Your task to perform on an android device: Go to Amazon Image 0: 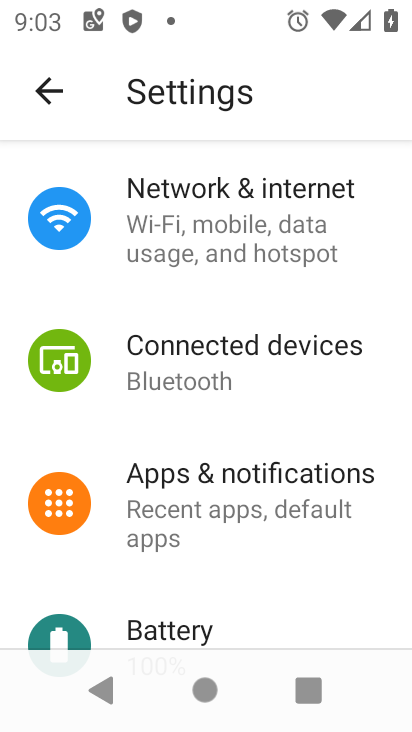
Step 0: press home button
Your task to perform on an android device: Go to Amazon Image 1: 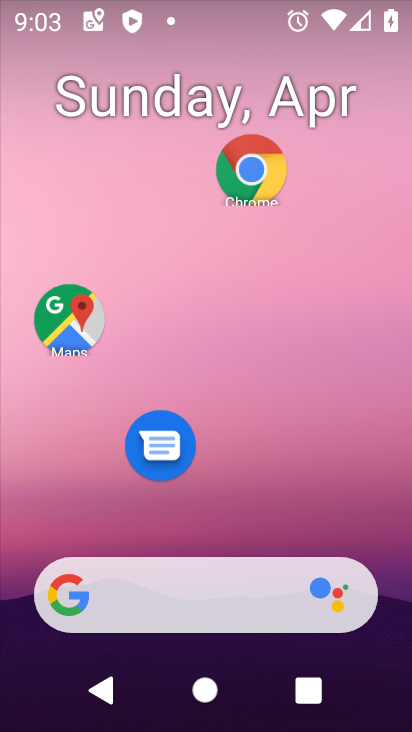
Step 1: click (252, 164)
Your task to perform on an android device: Go to Amazon Image 2: 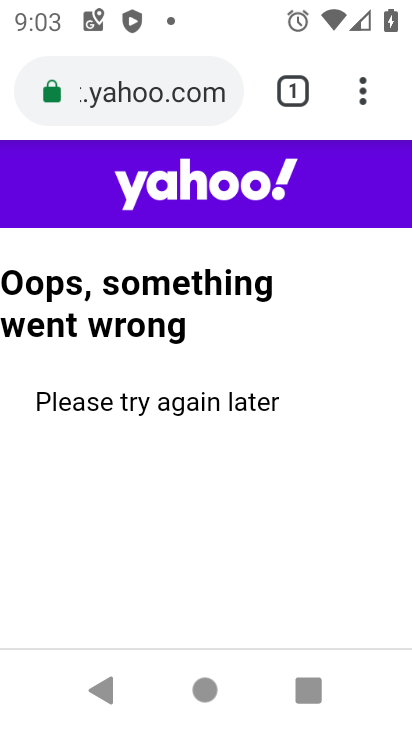
Step 2: press back button
Your task to perform on an android device: Go to Amazon Image 3: 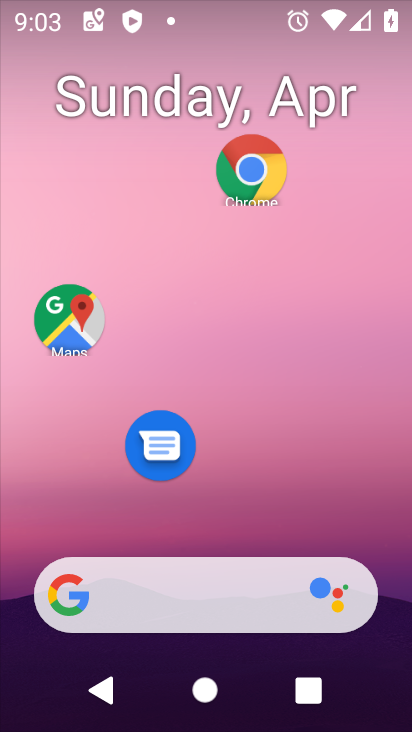
Step 3: click (254, 170)
Your task to perform on an android device: Go to Amazon Image 4: 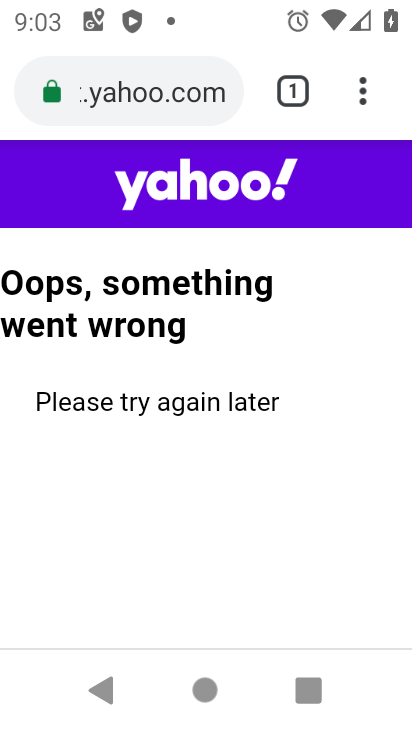
Step 4: click (180, 112)
Your task to perform on an android device: Go to Amazon Image 5: 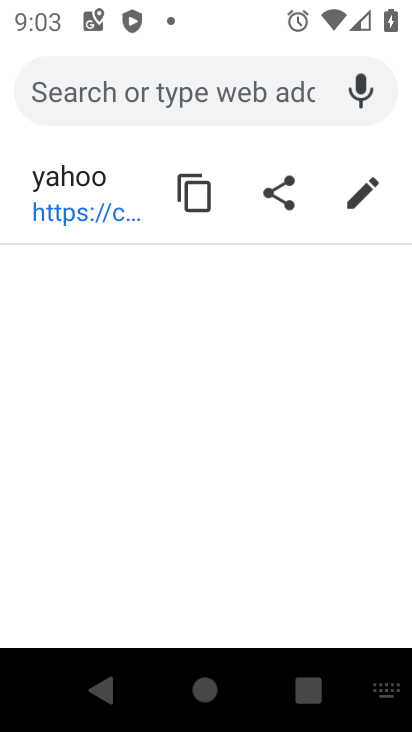
Step 5: type "amazon.com"
Your task to perform on an android device: Go to Amazon Image 6: 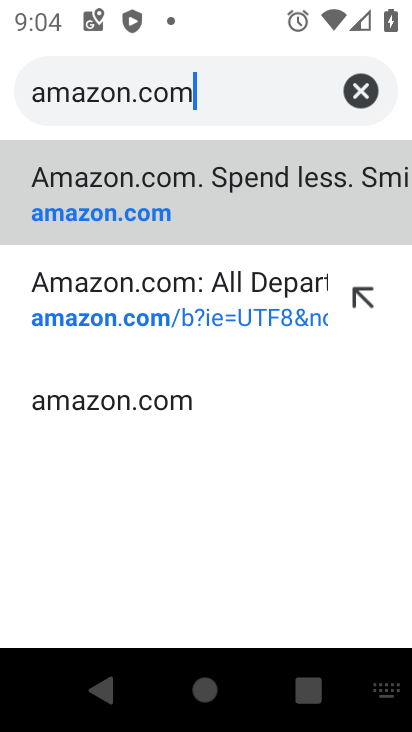
Step 6: click (201, 404)
Your task to perform on an android device: Go to Amazon Image 7: 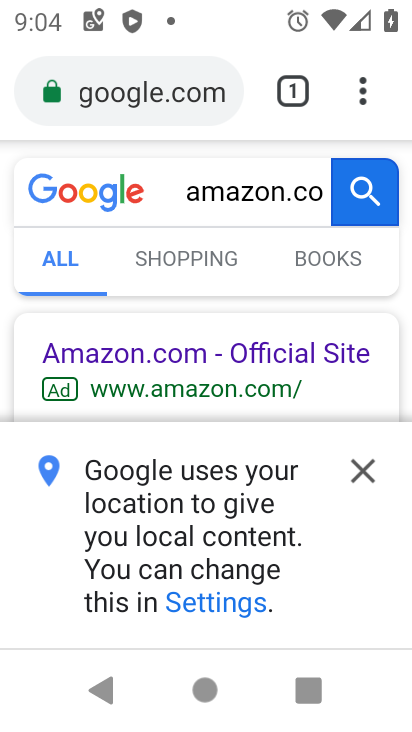
Step 7: click (360, 467)
Your task to perform on an android device: Go to Amazon Image 8: 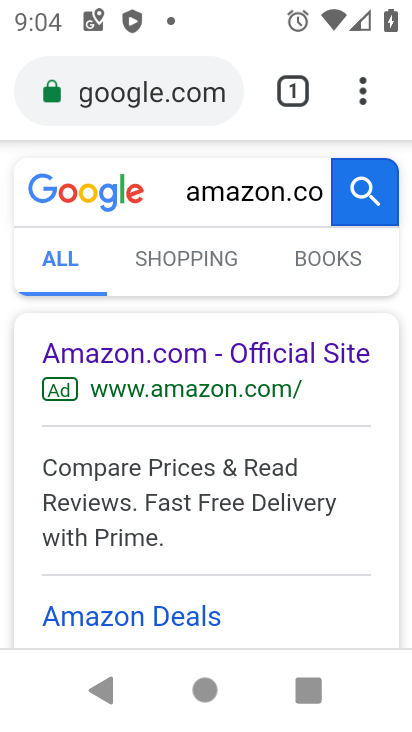
Step 8: task complete